Your task to perform on an android device: Show me recent news Image 0: 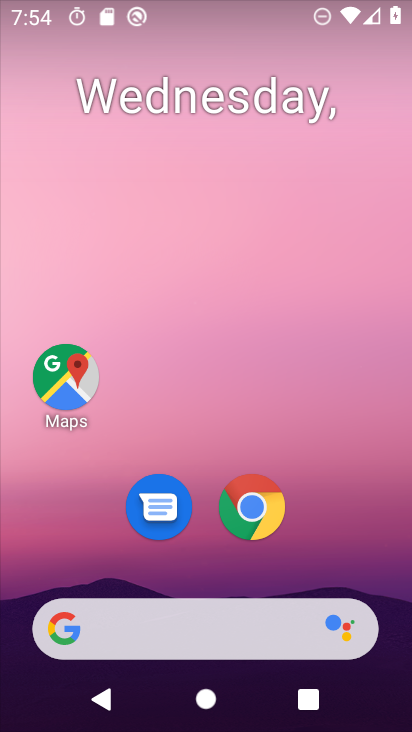
Step 0: drag from (253, 688) to (217, 259)
Your task to perform on an android device: Show me recent news Image 1: 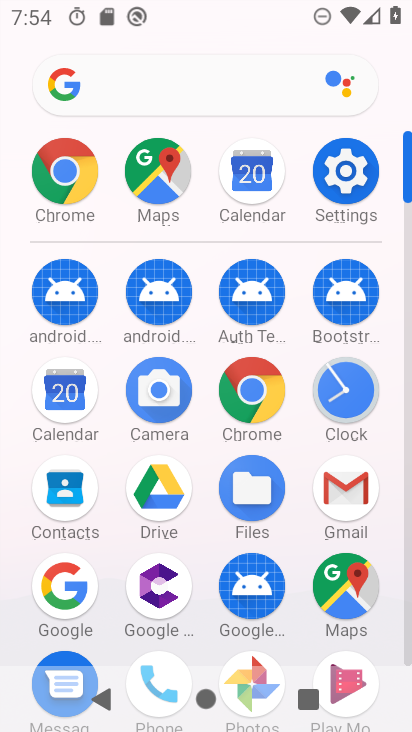
Step 1: click (127, 104)
Your task to perform on an android device: Show me recent news Image 2: 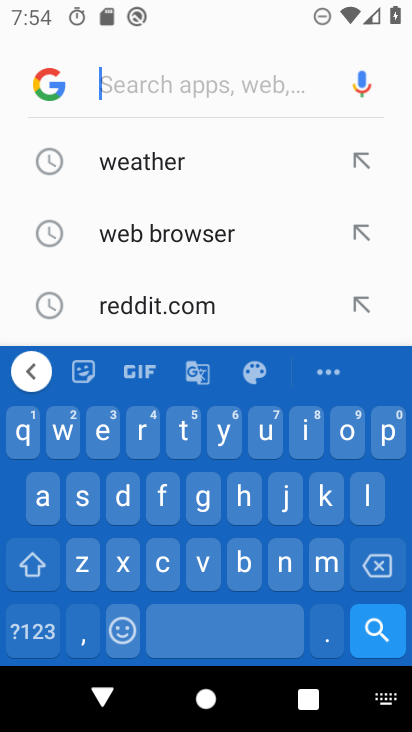
Step 2: click (137, 446)
Your task to perform on an android device: Show me recent news Image 3: 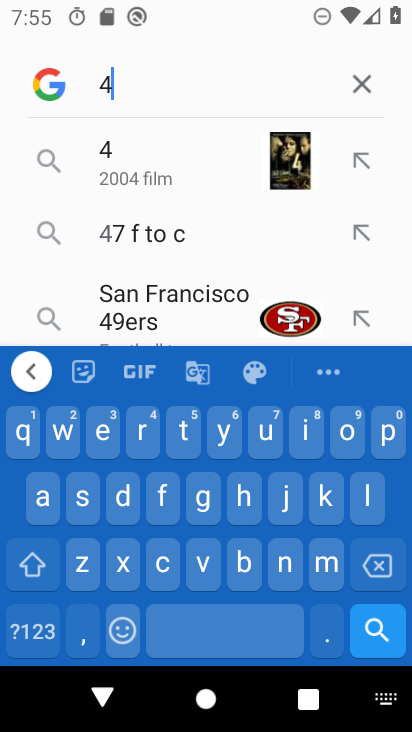
Step 3: click (384, 560)
Your task to perform on an android device: Show me recent news Image 4: 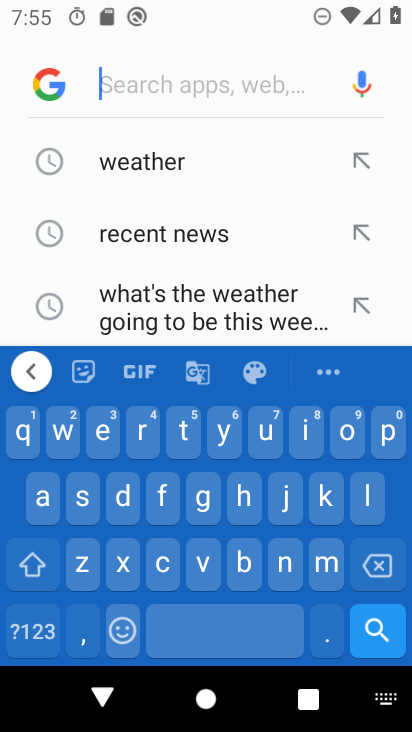
Step 4: click (132, 443)
Your task to perform on an android device: Show me recent news Image 5: 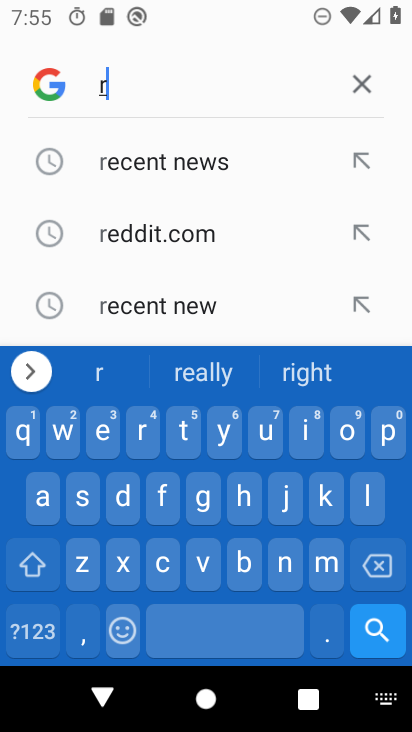
Step 5: click (187, 171)
Your task to perform on an android device: Show me recent news Image 6: 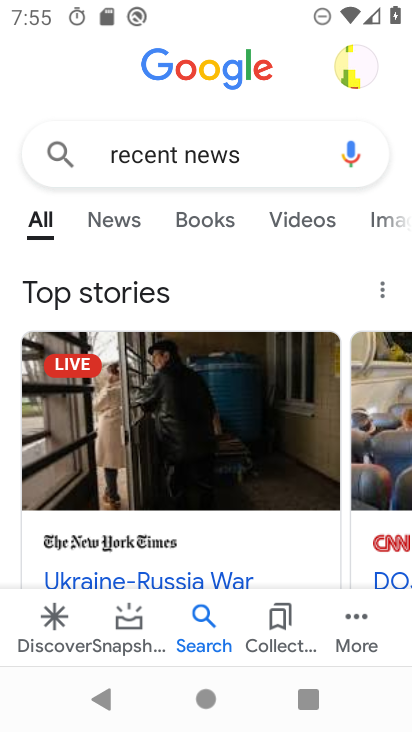
Step 6: task complete